Your task to perform on an android device: Go to settings Image 0: 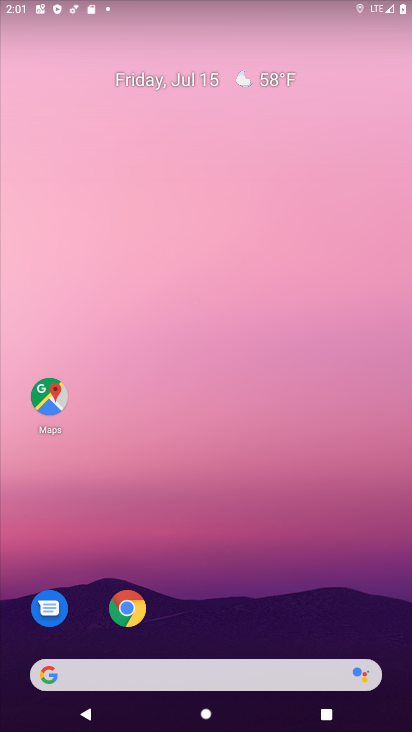
Step 0: drag from (229, 587) to (276, 184)
Your task to perform on an android device: Go to settings Image 1: 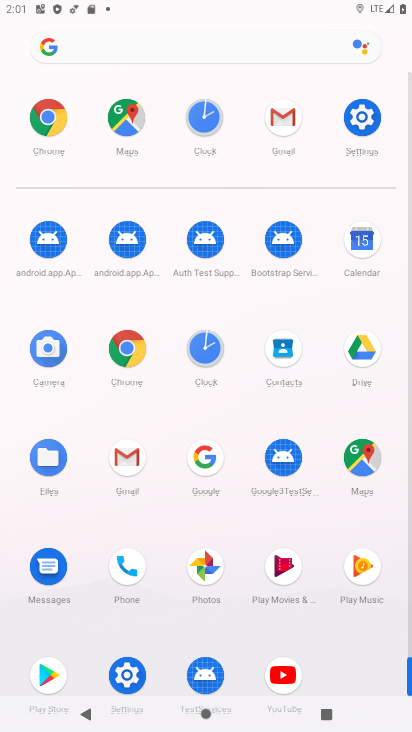
Step 1: click (118, 673)
Your task to perform on an android device: Go to settings Image 2: 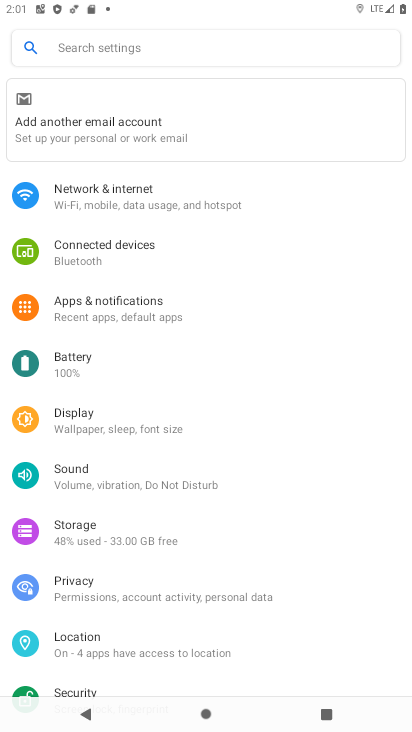
Step 2: task complete